Your task to perform on an android device: change alarm snooze length Image 0: 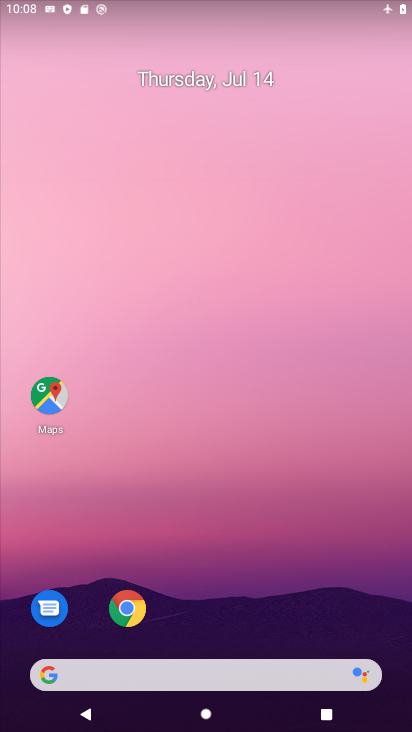
Step 0: drag from (212, 641) to (162, 68)
Your task to perform on an android device: change alarm snooze length Image 1: 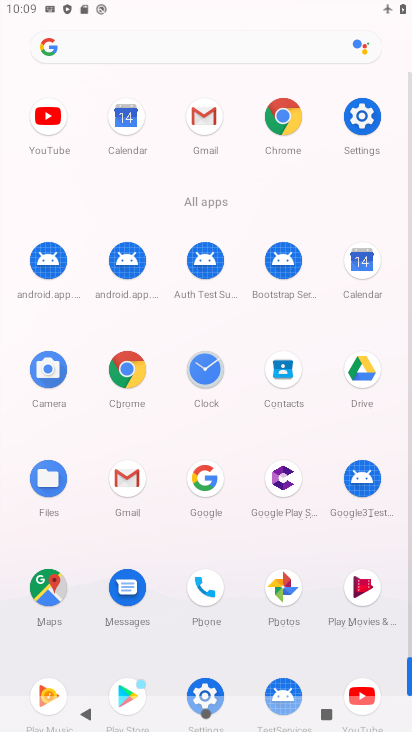
Step 1: click (210, 389)
Your task to perform on an android device: change alarm snooze length Image 2: 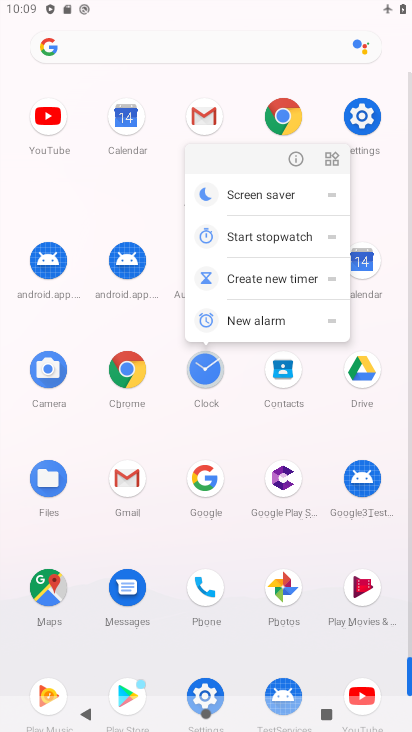
Step 2: click (197, 395)
Your task to perform on an android device: change alarm snooze length Image 3: 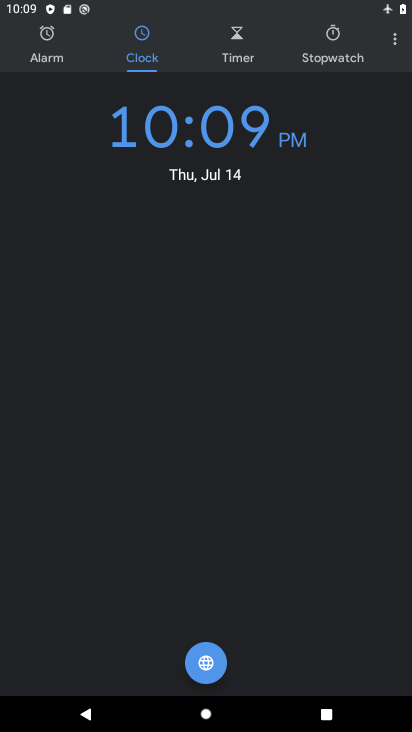
Step 3: click (388, 45)
Your task to perform on an android device: change alarm snooze length Image 4: 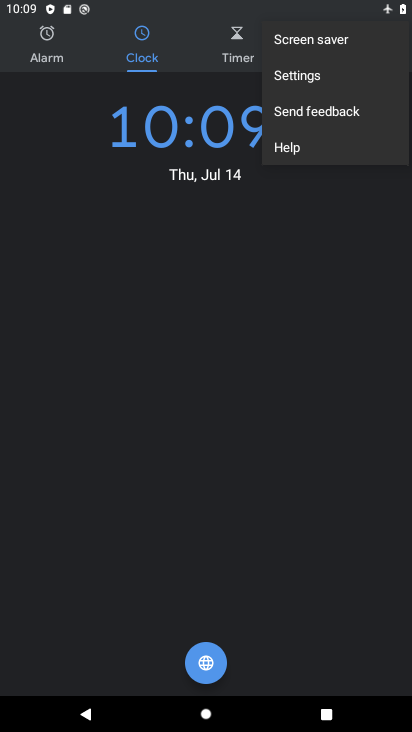
Step 4: click (303, 77)
Your task to perform on an android device: change alarm snooze length Image 5: 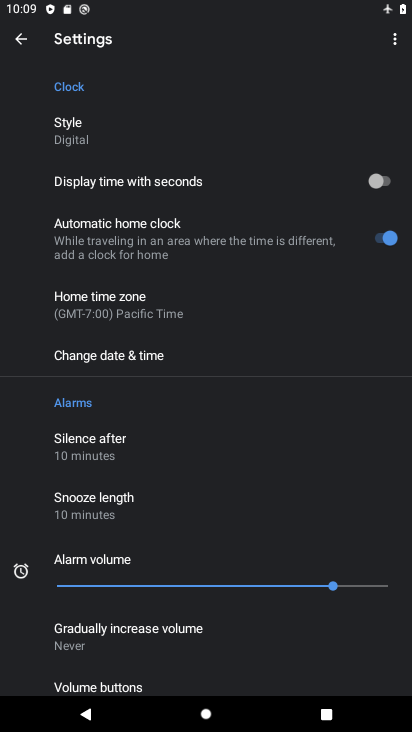
Step 5: drag from (138, 534) to (139, 96)
Your task to perform on an android device: change alarm snooze length Image 6: 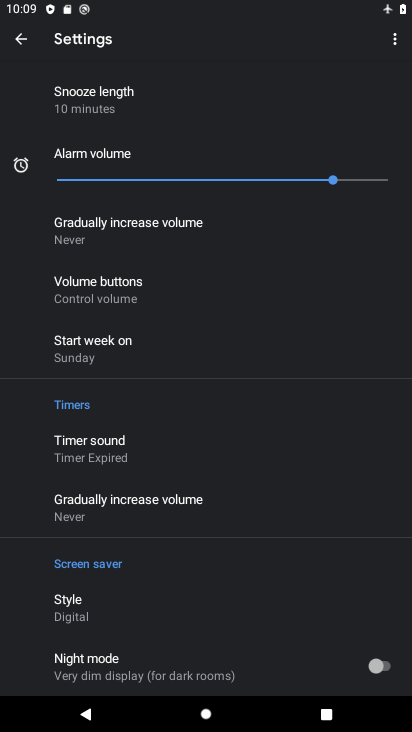
Step 6: click (107, 106)
Your task to perform on an android device: change alarm snooze length Image 7: 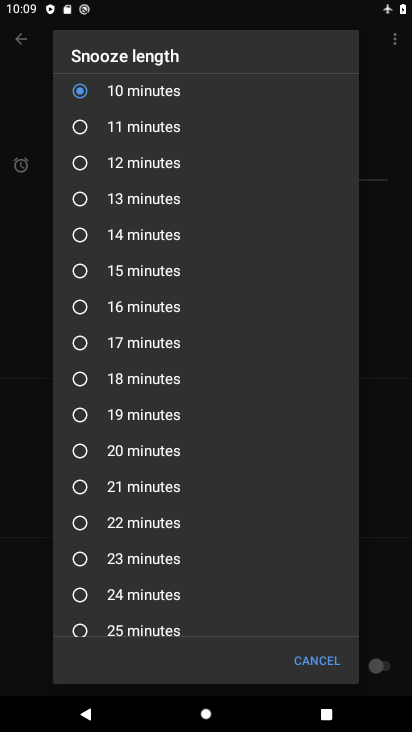
Step 7: click (107, 268)
Your task to perform on an android device: change alarm snooze length Image 8: 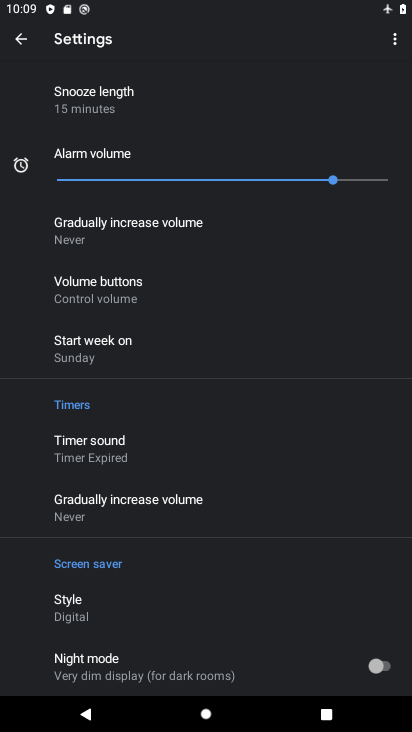
Step 8: task complete